Your task to perform on an android device: What is the news today? Image 0: 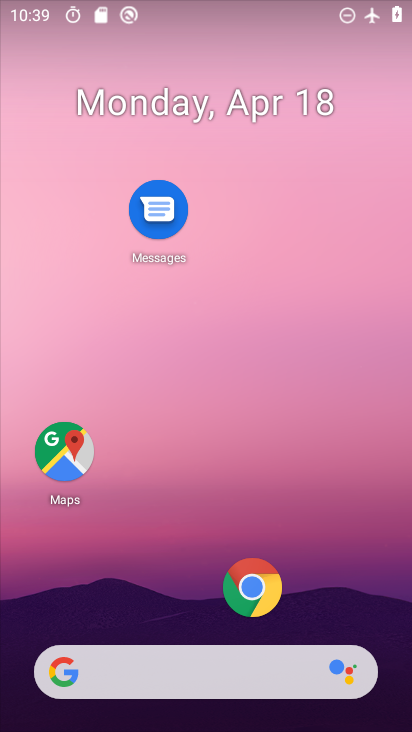
Step 0: click (193, 659)
Your task to perform on an android device: What is the news today? Image 1: 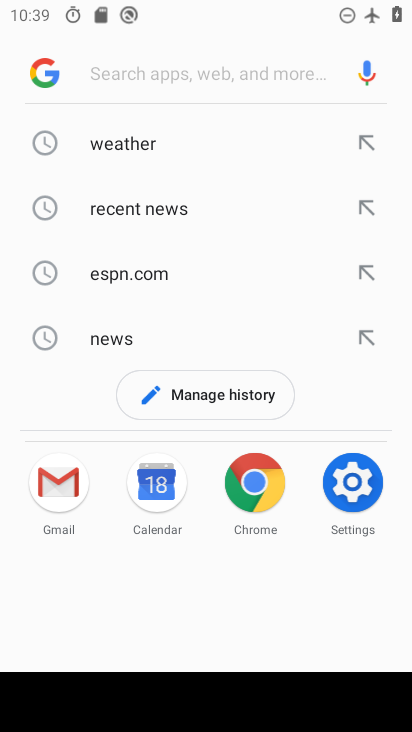
Step 1: click (122, 336)
Your task to perform on an android device: What is the news today? Image 2: 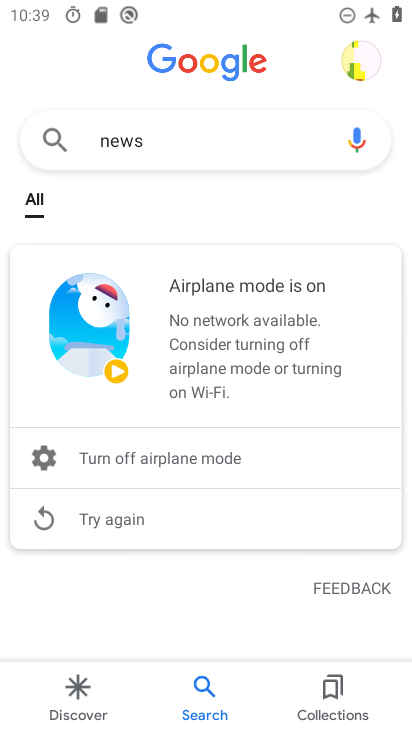
Step 2: task complete